Your task to perform on an android device: Open CNN.com Image 0: 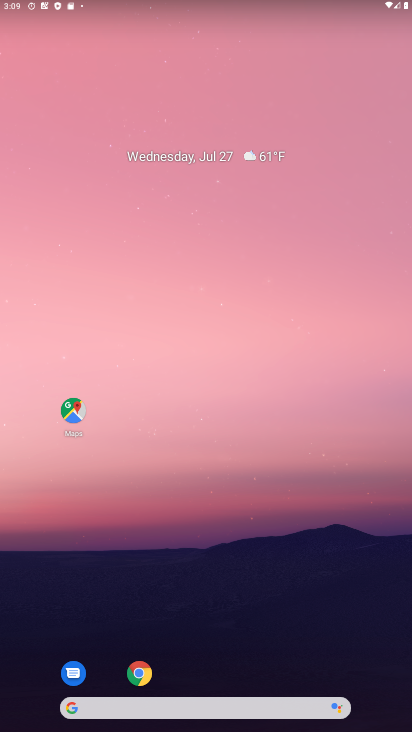
Step 0: click (116, 708)
Your task to perform on an android device: Open CNN.com Image 1: 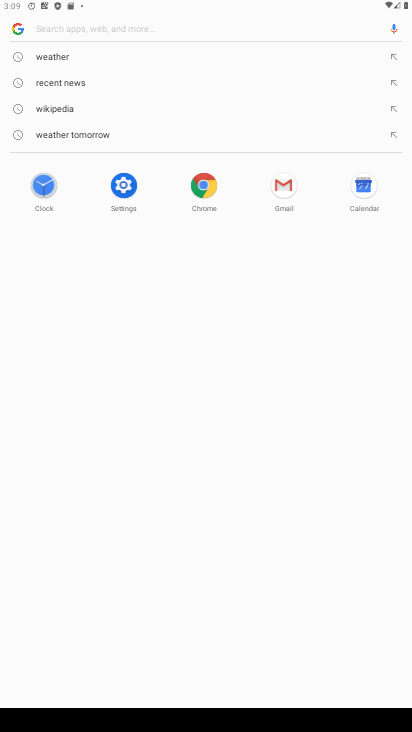
Step 1: type "CNN.com"
Your task to perform on an android device: Open CNN.com Image 2: 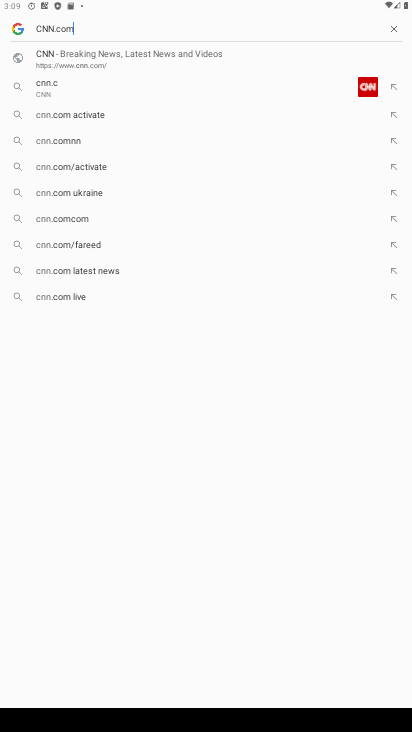
Step 2: type ""
Your task to perform on an android device: Open CNN.com Image 3: 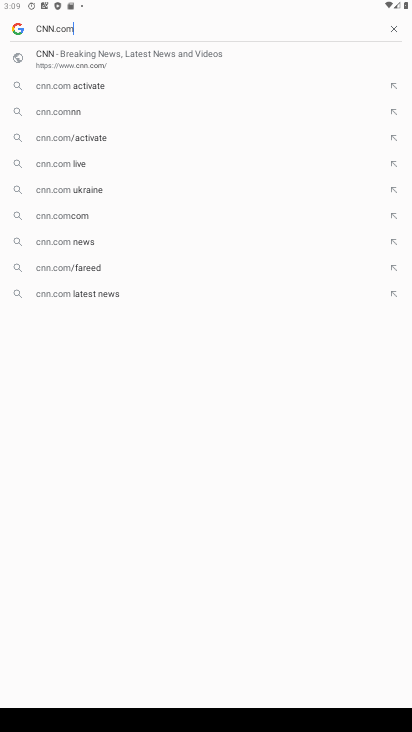
Step 3: click (46, 57)
Your task to perform on an android device: Open CNN.com Image 4: 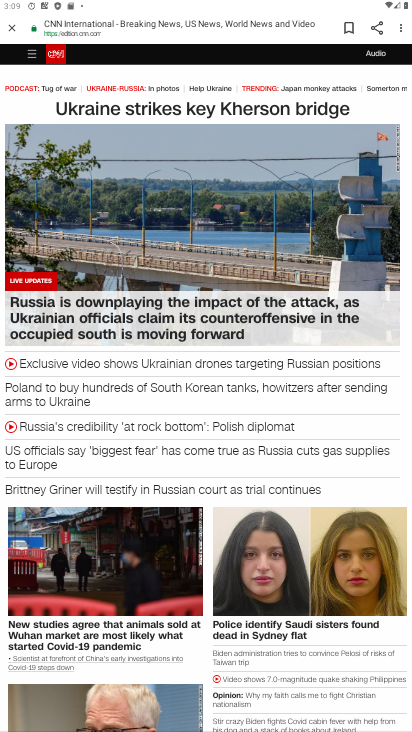
Step 4: task complete